Your task to perform on an android device: turn pop-ups off in chrome Image 0: 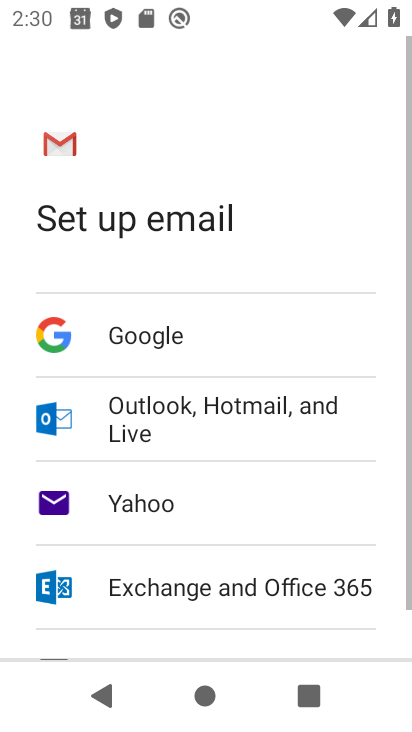
Step 0: press home button
Your task to perform on an android device: turn pop-ups off in chrome Image 1: 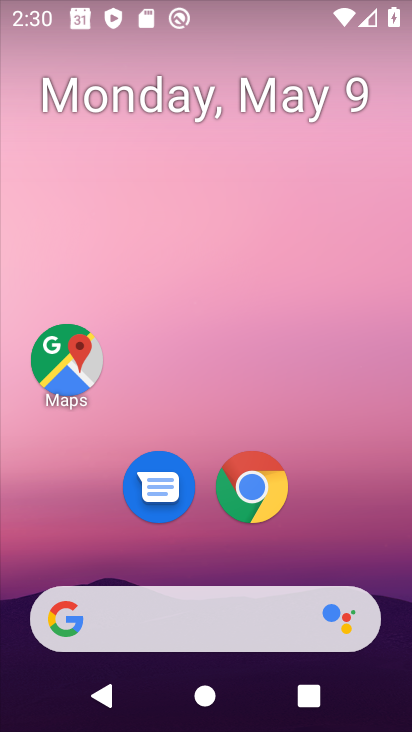
Step 1: click (250, 492)
Your task to perform on an android device: turn pop-ups off in chrome Image 2: 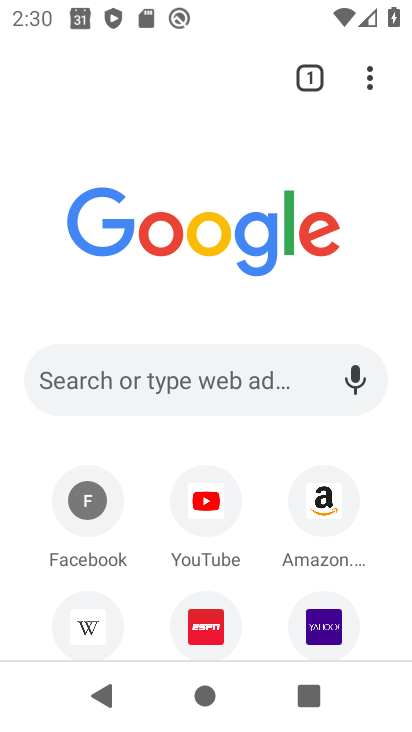
Step 2: click (369, 78)
Your task to perform on an android device: turn pop-ups off in chrome Image 3: 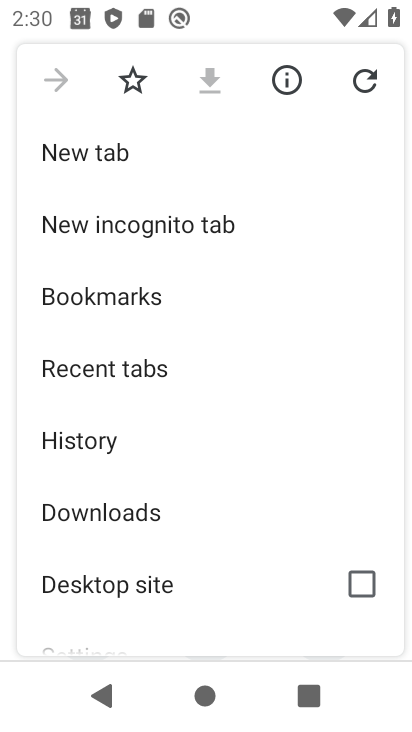
Step 3: drag from (179, 588) to (320, 127)
Your task to perform on an android device: turn pop-ups off in chrome Image 4: 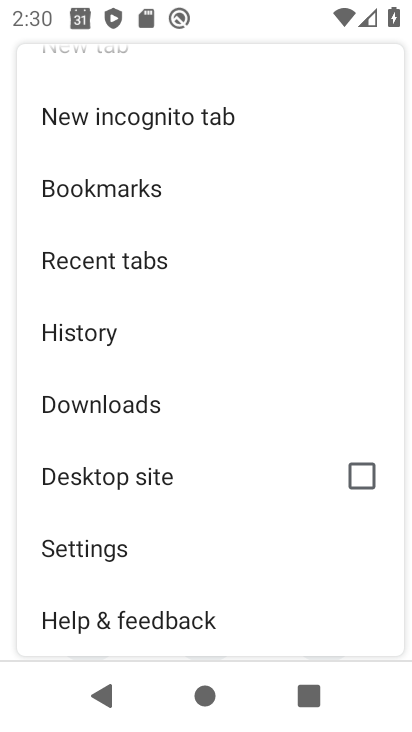
Step 4: click (144, 538)
Your task to perform on an android device: turn pop-ups off in chrome Image 5: 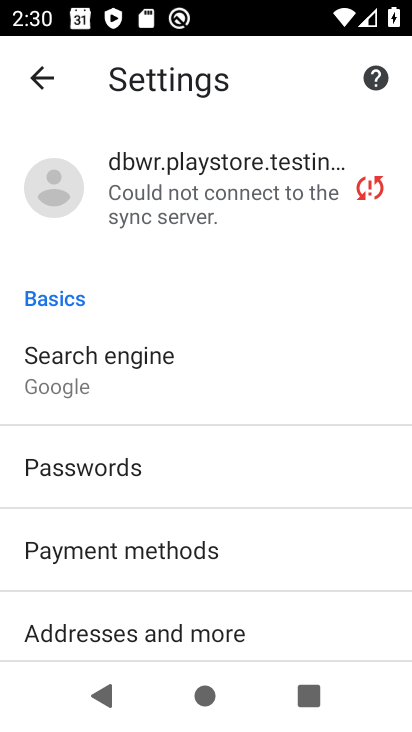
Step 5: drag from (141, 610) to (189, 386)
Your task to perform on an android device: turn pop-ups off in chrome Image 6: 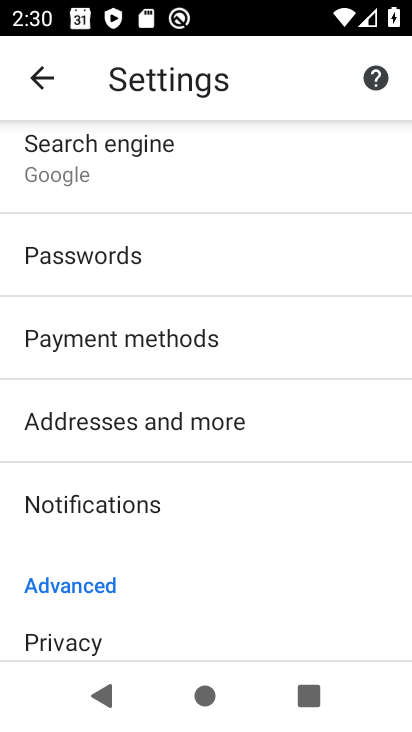
Step 6: drag from (149, 603) to (169, 265)
Your task to perform on an android device: turn pop-ups off in chrome Image 7: 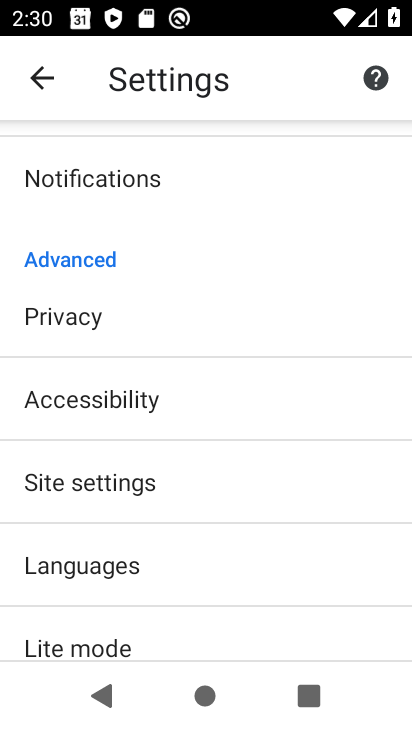
Step 7: click (160, 501)
Your task to perform on an android device: turn pop-ups off in chrome Image 8: 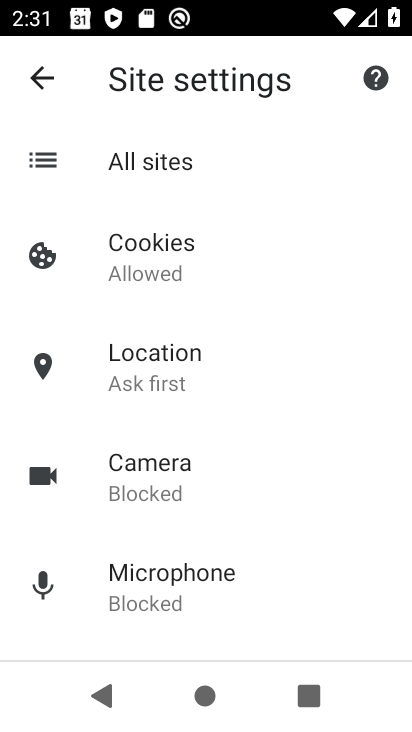
Step 8: drag from (184, 584) to (202, 435)
Your task to perform on an android device: turn pop-ups off in chrome Image 9: 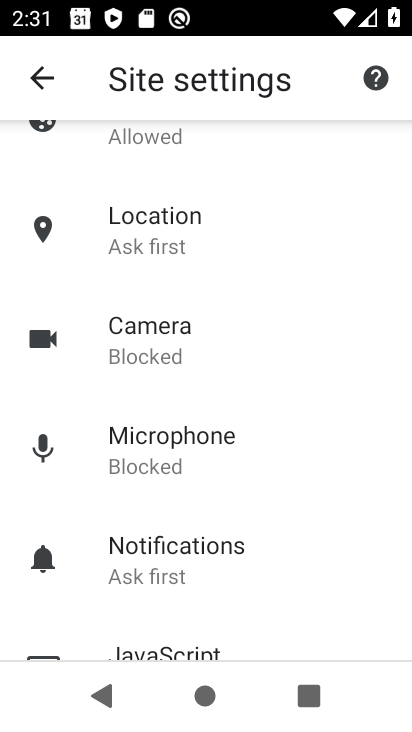
Step 9: drag from (192, 600) to (232, 358)
Your task to perform on an android device: turn pop-ups off in chrome Image 10: 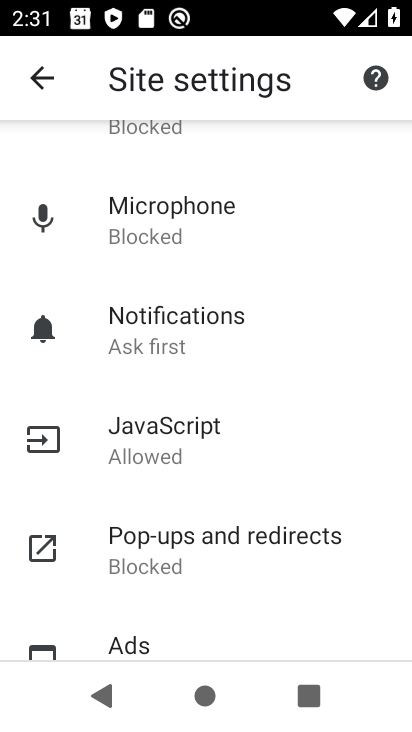
Step 10: click (167, 560)
Your task to perform on an android device: turn pop-ups off in chrome Image 11: 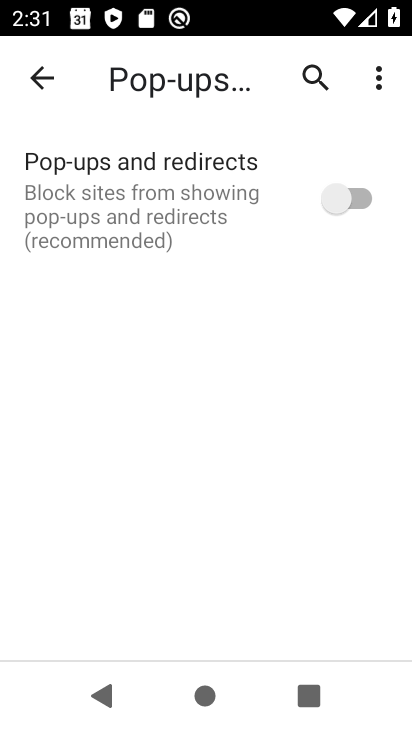
Step 11: task complete